Your task to perform on an android device: open wifi settings Image 0: 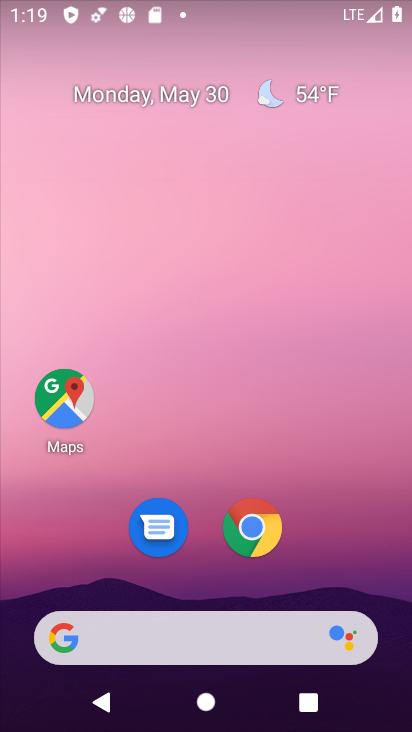
Step 0: drag from (95, 598) to (189, 100)
Your task to perform on an android device: open wifi settings Image 1: 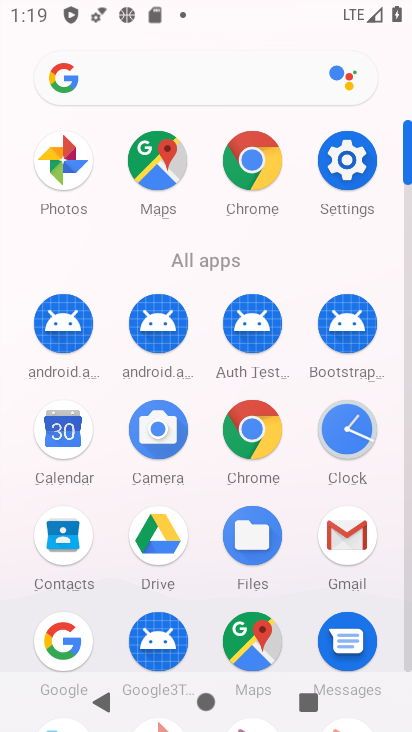
Step 1: drag from (201, 646) to (282, 280)
Your task to perform on an android device: open wifi settings Image 2: 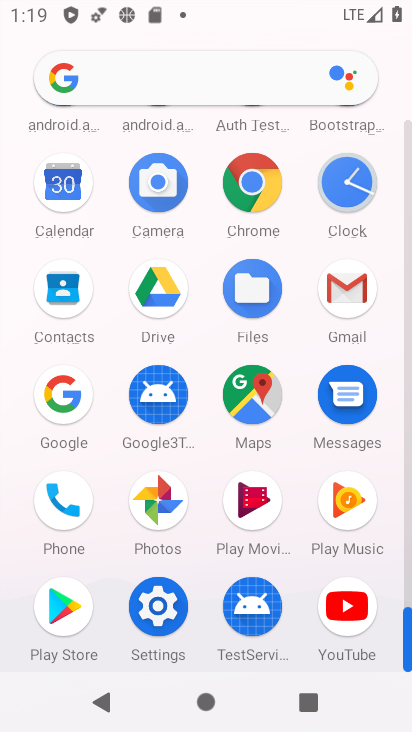
Step 2: click (163, 615)
Your task to perform on an android device: open wifi settings Image 3: 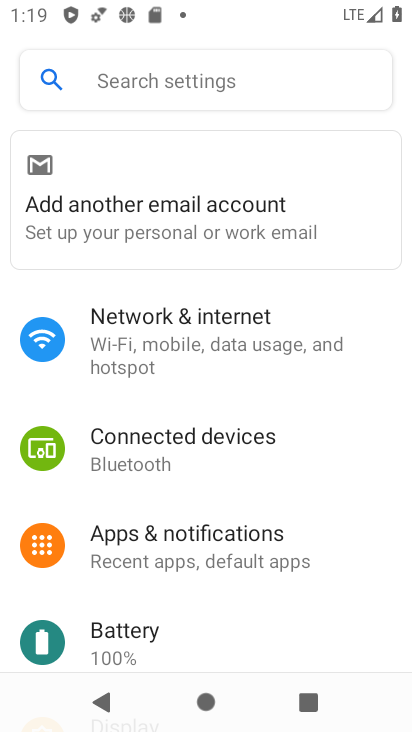
Step 3: click (226, 362)
Your task to perform on an android device: open wifi settings Image 4: 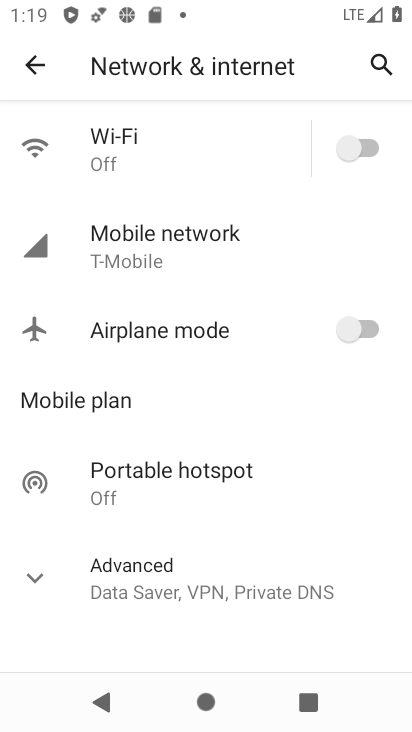
Step 4: click (178, 180)
Your task to perform on an android device: open wifi settings Image 5: 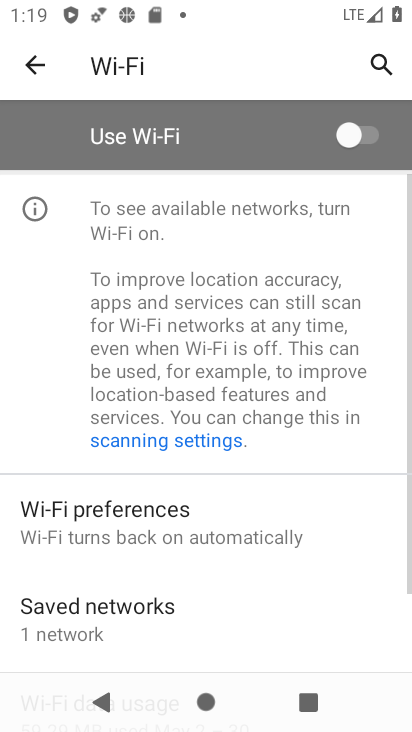
Step 5: task complete